Your task to perform on an android device: Search for seafood restaurants on Google Maps Image 0: 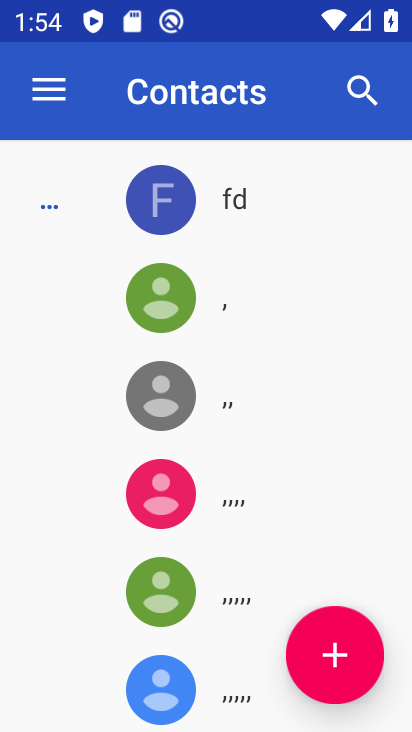
Step 0: press home button
Your task to perform on an android device: Search for seafood restaurants on Google Maps Image 1: 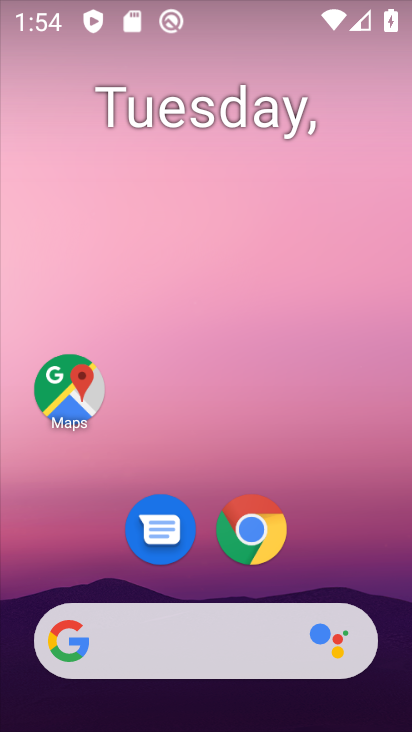
Step 1: drag from (194, 574) to (244, 89)
Your task to perform on an android device: Search for seafood restaurants on Google Maps Image 2: 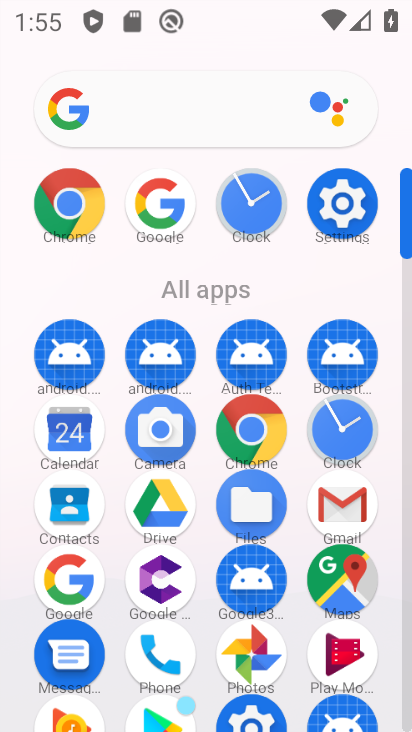
Step 2: click (338, 579)
Your task to perform on an android device: Search for seafood restaurants on Google Maps Image 3: 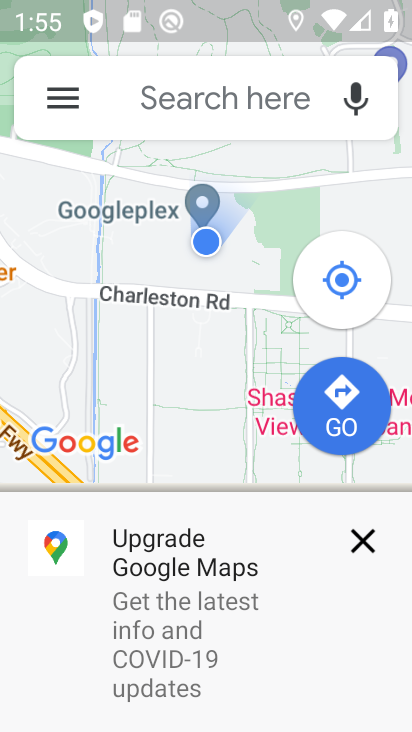
Step 3: click (192, 106)
Your task to perform on an android device: Search for seafood restaurants on Google Maps Image 4: 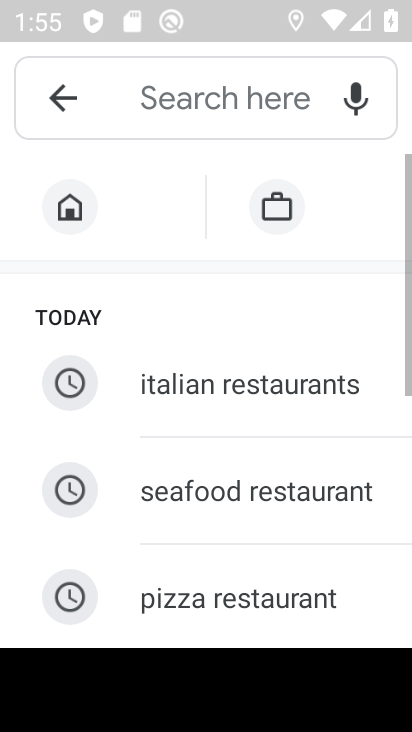
Step 4: click (183, 496)
Your task to perform on an android device: Search for seafood restaurants on Google Maps Image 5: 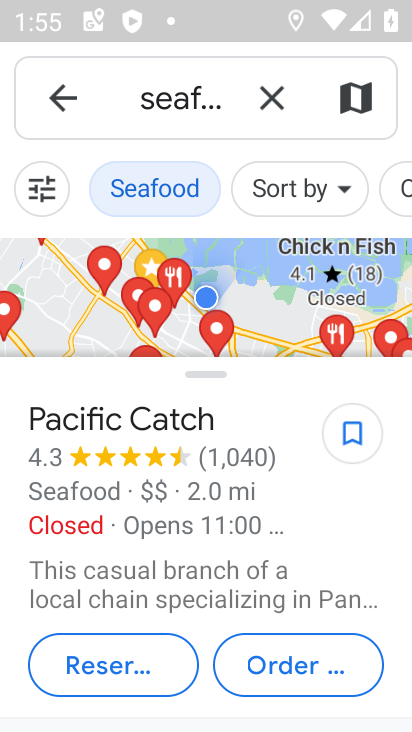
Step 5: task complete